Your task to perform on an android device: turn vacation reply on in the gmail app Image 0: 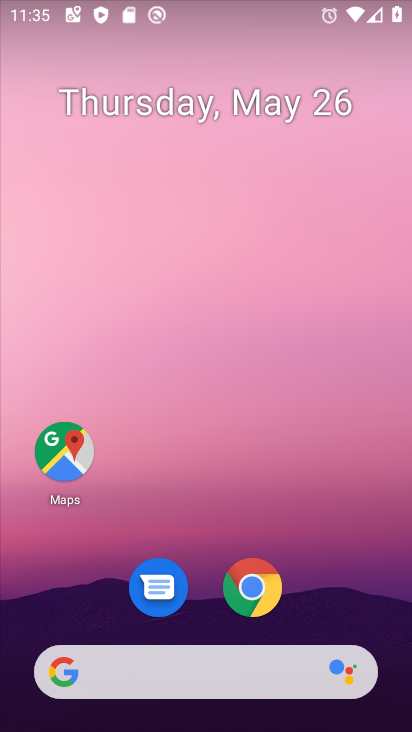
Step 0: drag from (235, 658) to (288, 179)
Your task to perform on an android device: turn vacation reply on in the gmail app Image 1: 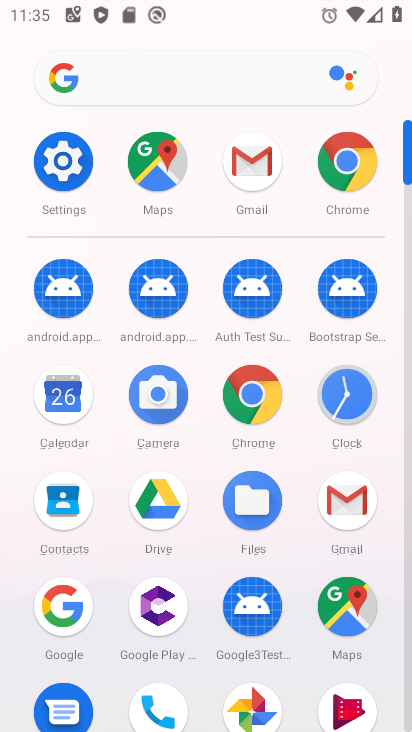
Step 1: click (252, 189)
Your task to perform on an android device: turn vacation reply on in the gmail app Image 2: 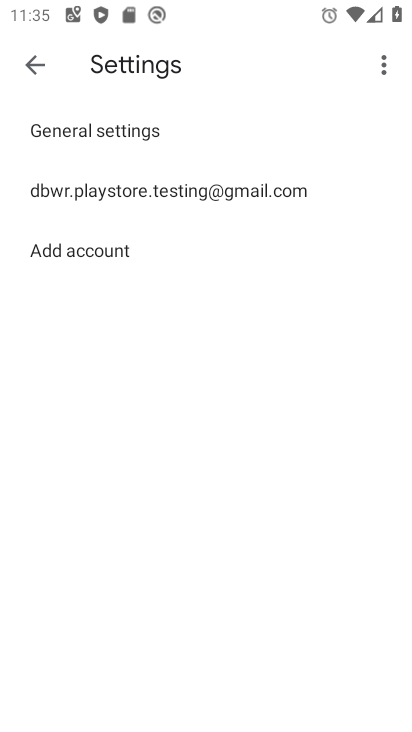
Step 2: click (126, 203)
Your task to perform on an android device: turn vacation reply on in the gmail app Image 3: 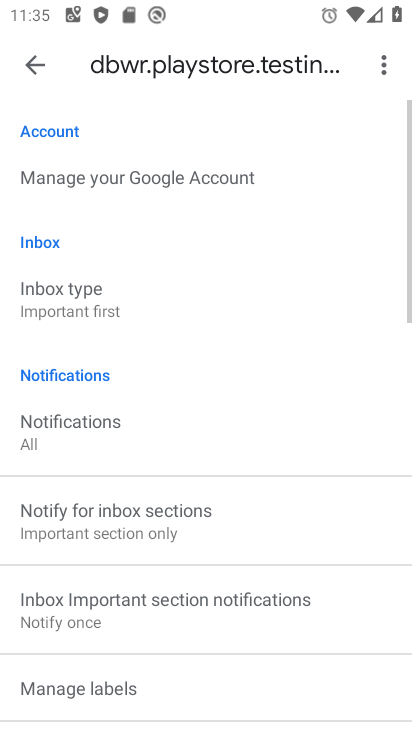
Step 3: drag from (169, 525) to (271, 91)
Your task to perform on an android device: turn vacation reply on in the gmail app Image 4: 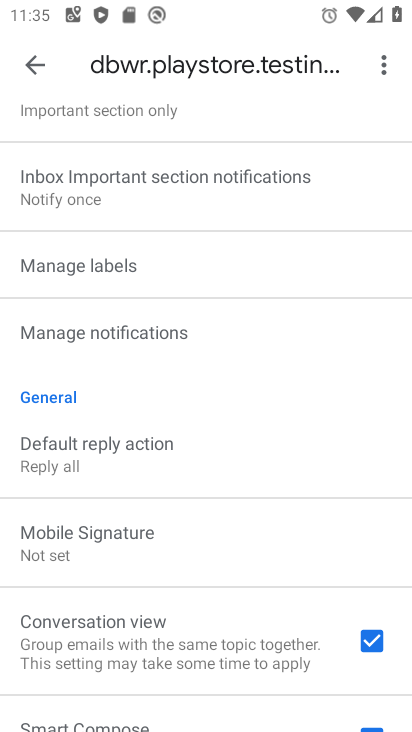
Step 4: drag from (289, 444) to (326, 116)
Your task to perform on an android device: turn vacation reply on in the gmail app Image 5: 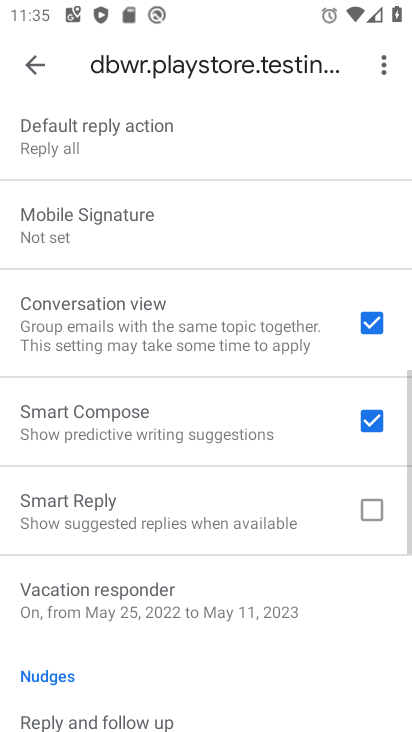
Step 5: drag from (252, 510) to (310, 155)
Your task to perform on an android device: turn vacation reply on in the gmail app Image 6: 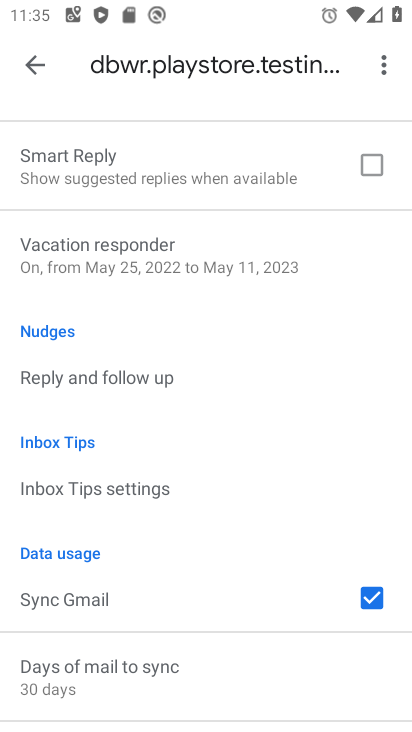
Step 6: drag from (179, 638) to (178, 603)
Your task to perform on an android device: turn vacation reply on in the gmail app Image 7: 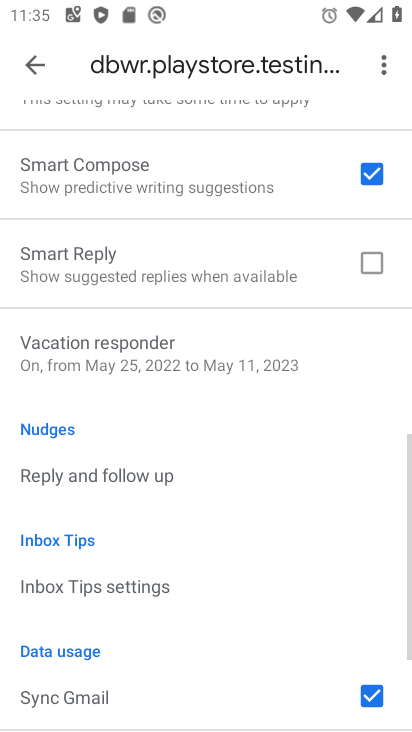
Step 7: click (124, 362)
Your task to perform on an android device: turn vacation reply on in the gmail app Image 8: 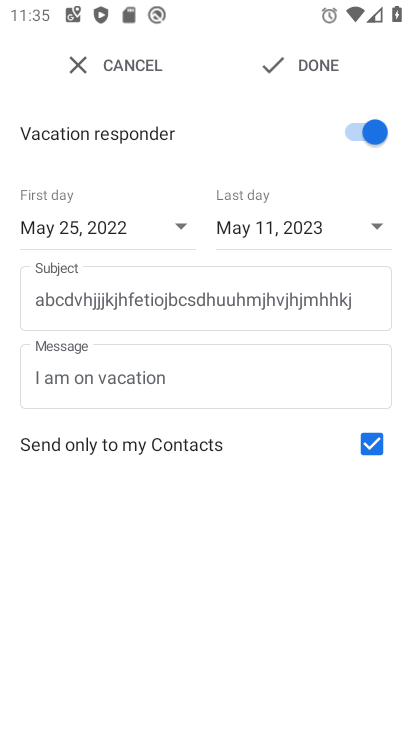
Step 8: task complete